Your task to perform on an android device: clear history in the chrome app Image 0: 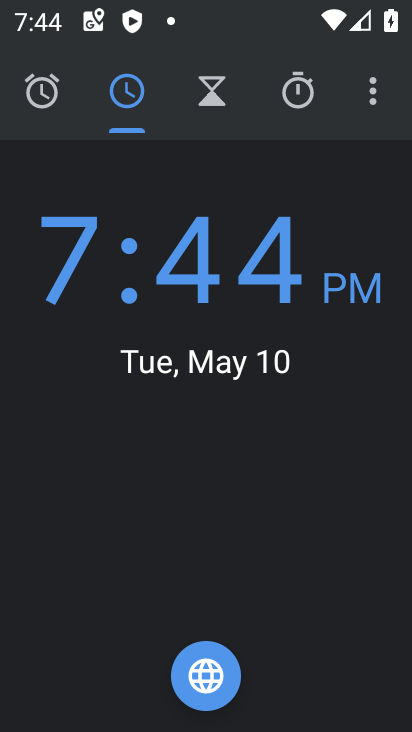
Step 0: press home button
Your task to perform on an android device: clear history in the chrome app Image 1: 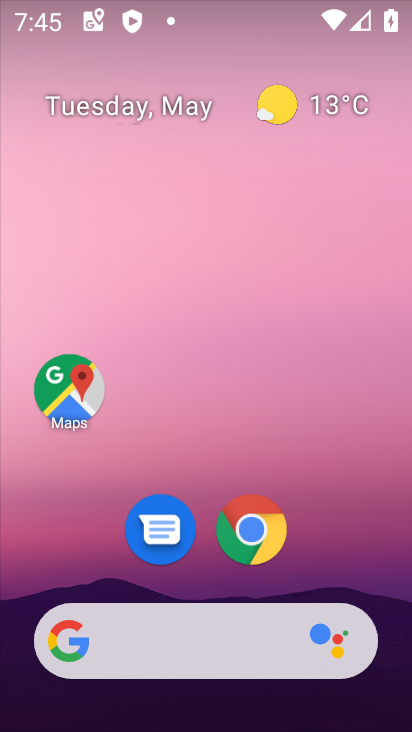
Step 1: click (243, 566)
Your task to perform on an android device: clear history in the chrome app Image 2: 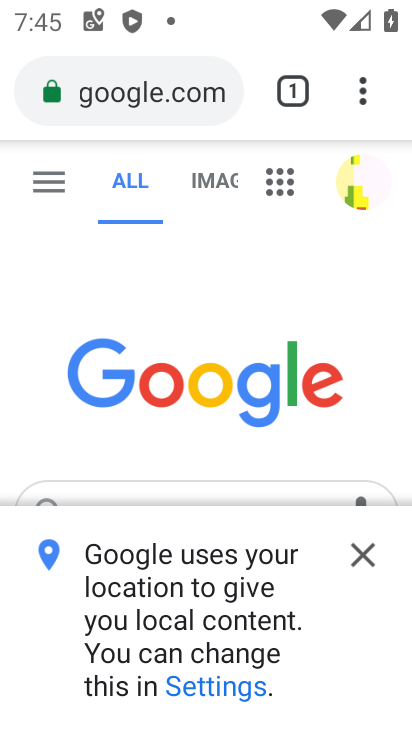
Step 2: click (374, 94)
Your task to perform on an android device: clear history in the chrome app Image 3: 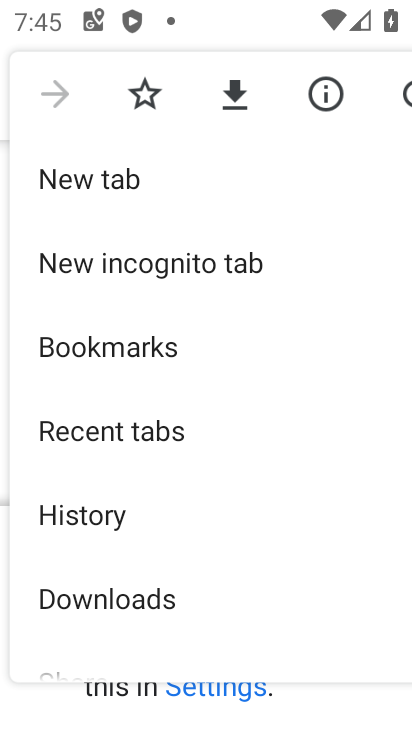
Step 3: click (204, 519)
Your task to perform on an android device: clear history in the chrome app Image 4: 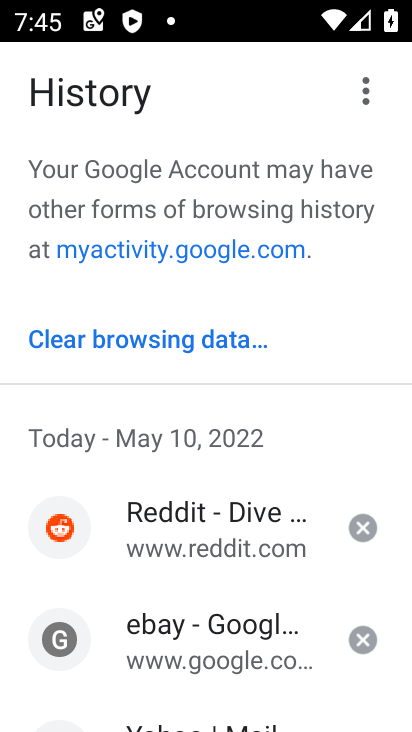
Step 4: click (194, 347)
Your task to perform on an android device: clear history in the chrome app Image 5: 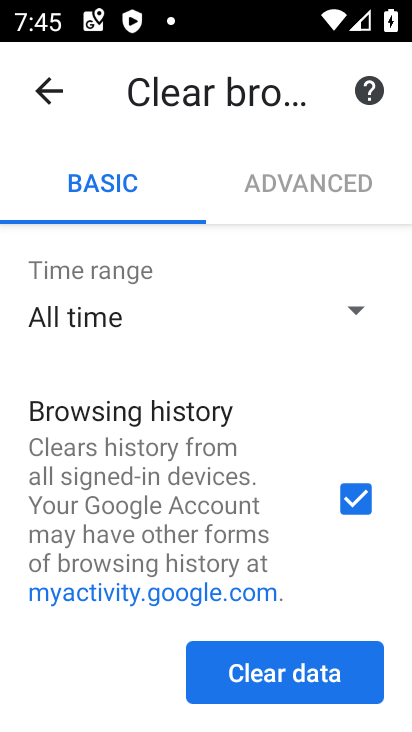
Step 5: click (304, 666)
Your task to perform on an android device: clear history in the chrome app Image 6: 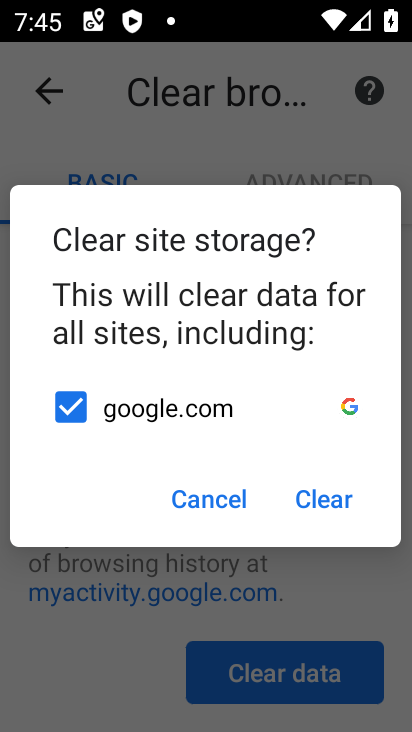
Step 6: click (312, 509)
Your task to perform on an android device: clear history in the chrome app Image 7: 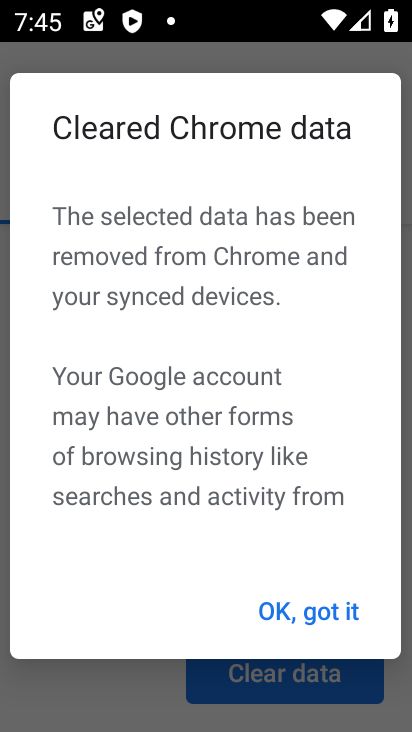
Step 7: task complete